Your task to perform on an android device: set the stopwatch Image 0: 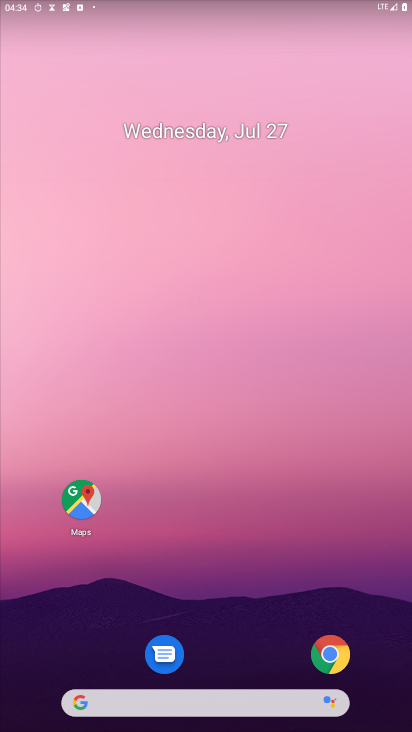
Step 0: drag from (144, 631) to (257, 10)
Your task to perform on an android device: set the stopwatch Image 1: 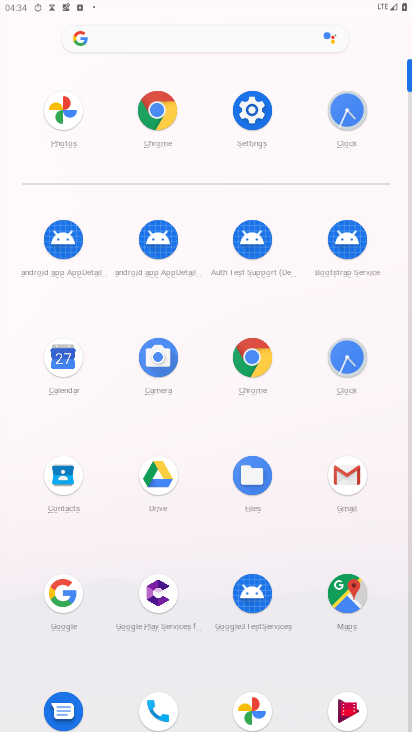
Step 1: click (340, 360)
Your task to perform on an android device: set the stopwatch Image 2: 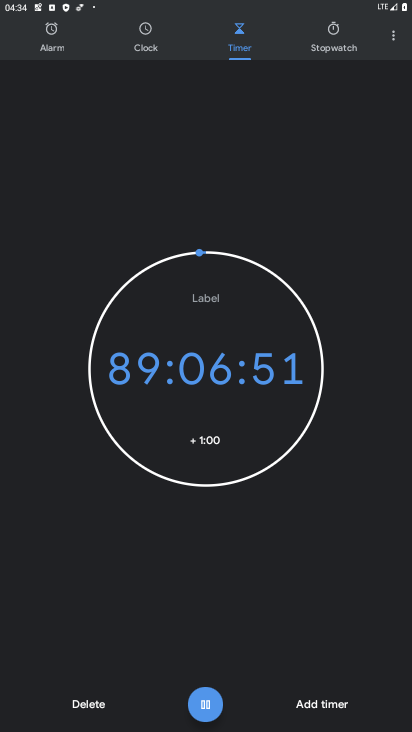
Step 2: click (337, 37)
Your task to perform on an android device: set the stopwatch Image 3: 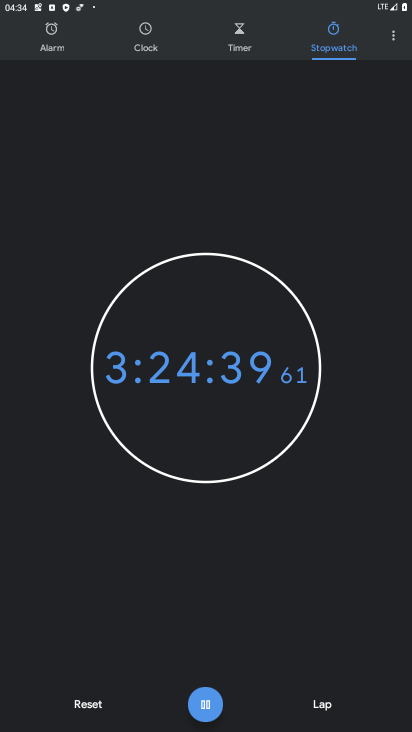
Step 3: task complete